Your task to perform on an android device: Show me popular videos on Youtube Image 0: 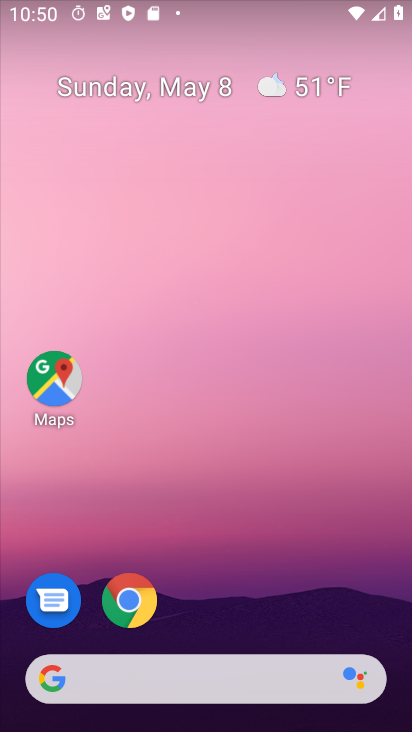
Step 0: drag from (269, 557) to (239, 29)
Your task to perform on an android device: Show me popular videos on Youtube Image 1: 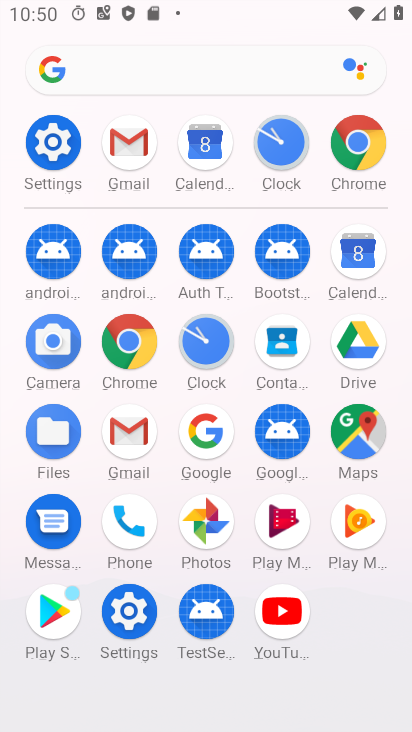
Step 1: click (280, 609)
Your task to perform on an android device: Show me popular videos on Youtube Image 2: 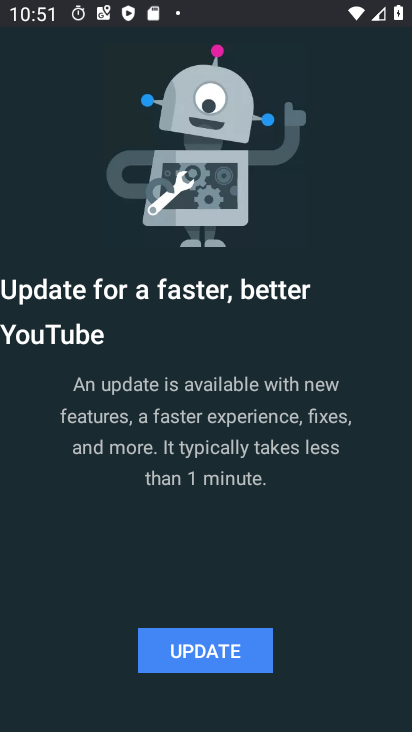
Step 2: click (195, 661)
Your task to perform on an android device: Show me popular videos on Youtube Image 3: 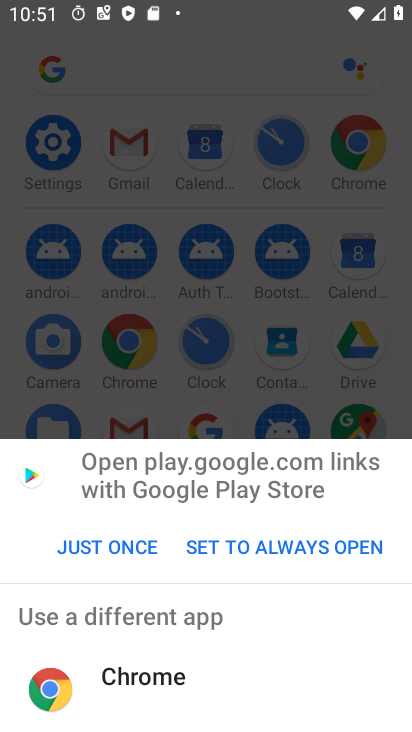
Step 3: click (125, 549)
Your task to perform on an android device: Show me popular videos on Youtube Image 4: 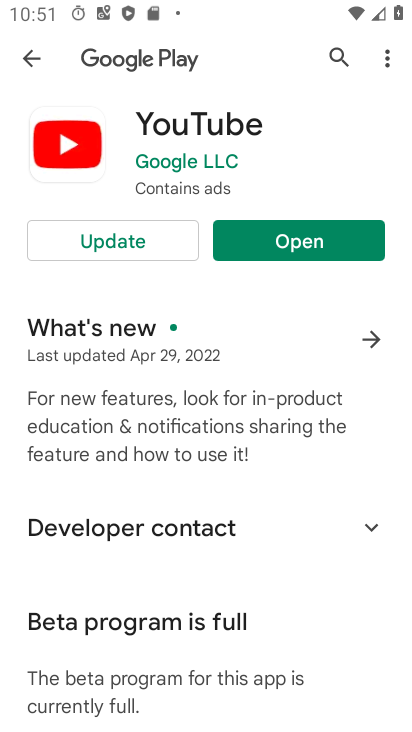
Step 4: click (109, 226)
Your task to perform on an android device: Show me popular videos on Youtube Image 5: 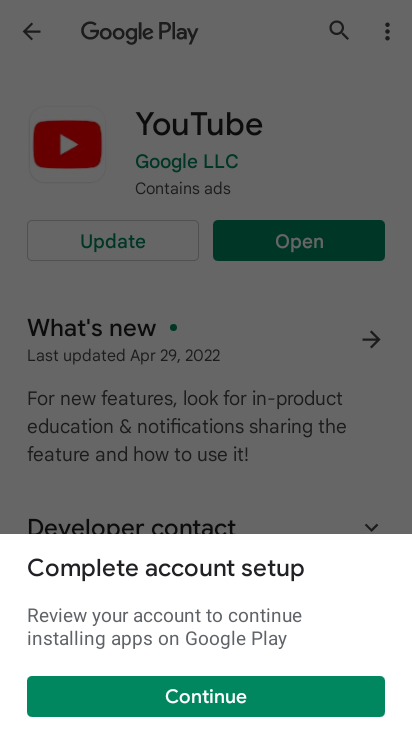
Step 5: click (217, 685)
Your task to perform on an android device: Show me popular videos on Youtube Image 6: 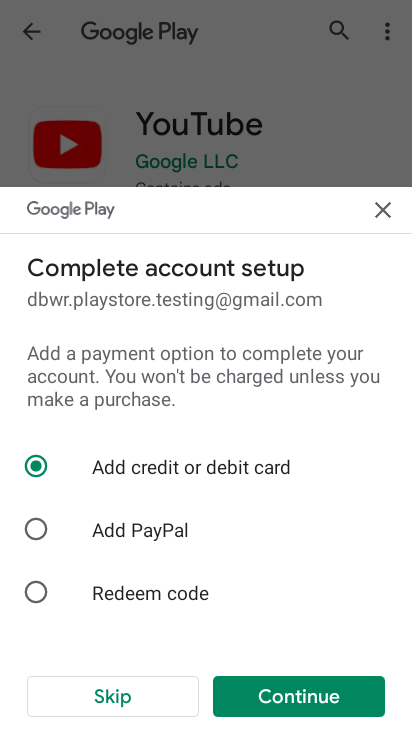
Step 6: click (369, 204)
Your task to perform on an android device: Show me popular videos on Youtube Image 7: 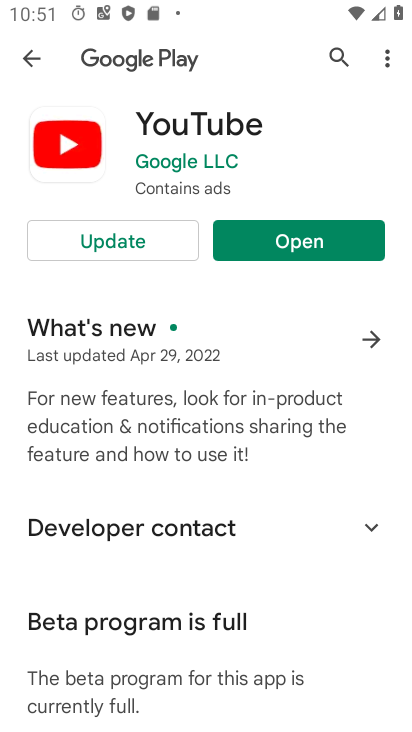
Step 7: click (107, 238)
Your task to perform on an android device: Show me popular videos on Youtube Image 8: 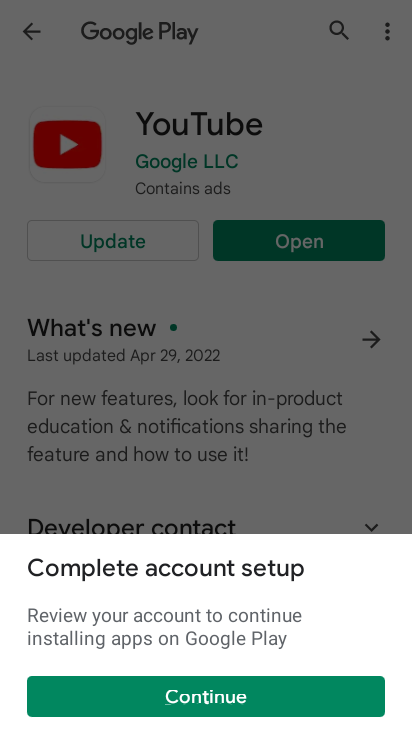
Step 8: click (297, 359)
Your task to perform on an android device: Show me popular videos on Youtube Image 9: 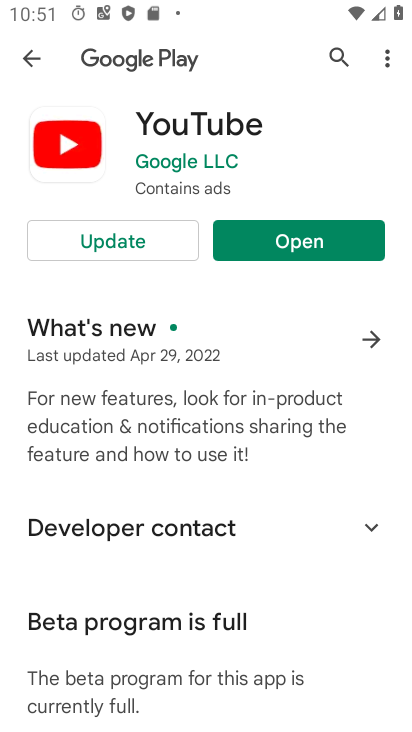
Step 9: click (271, 237)
Your task to perform on an android device: Show me popular videos on Youtube Image 10: 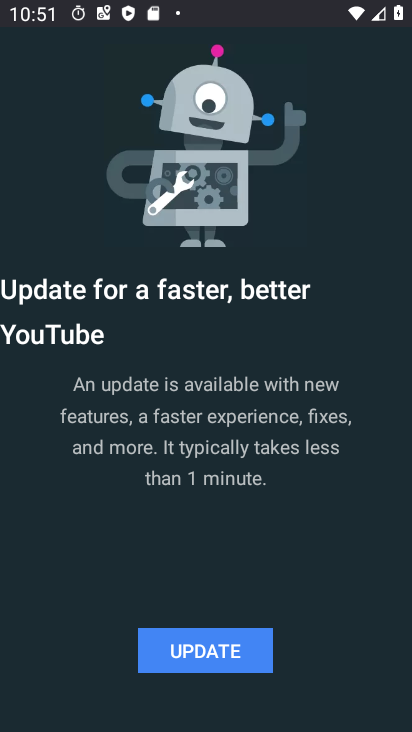
Step 10: click (246, 640)
Your task to perform on an android device: Show me popular videos on Youtube Image 11: 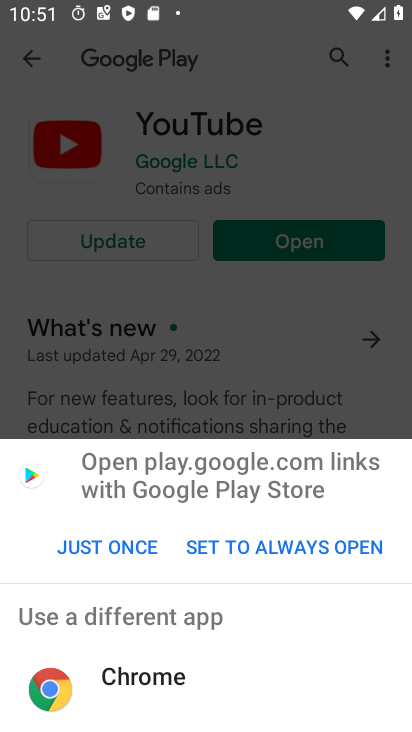
Step 11: click (130, 544)
Your task to perform on an android device: Show me popular videos on Youtube Image 12: 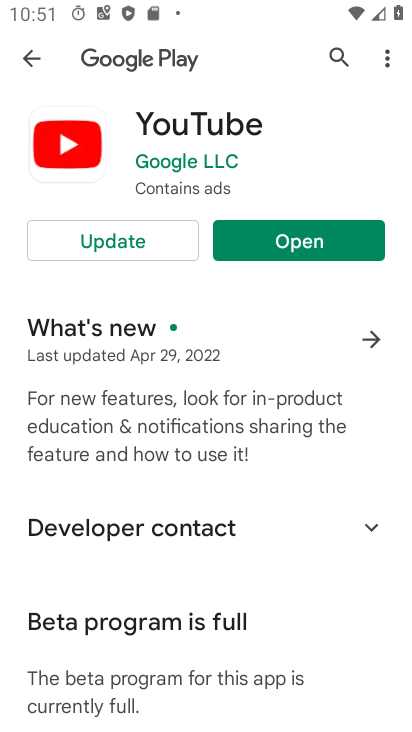
Step 12: click (123, 241)
Your task to perform on an android device: Show me popular videos on Youtube Image 13: 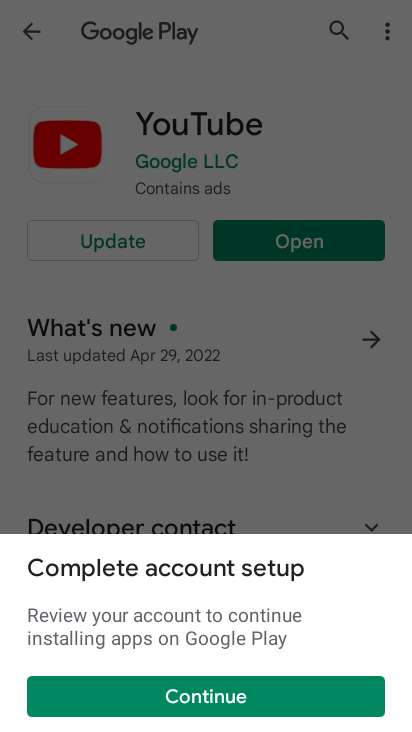
Step 13: task complete